Your task to perform on an android device: stop showing notifications on the lock screen Image 0: 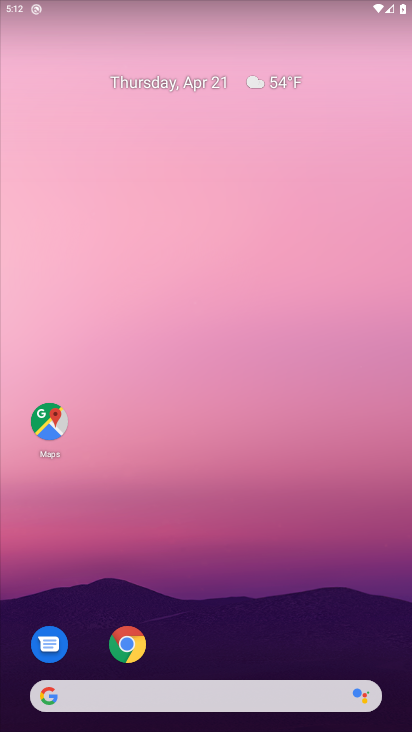
Step 0: drag from (253, 676) to (294, 328)
Your task to perform on an android device: stop showing notifications on the lock screen Image 1: 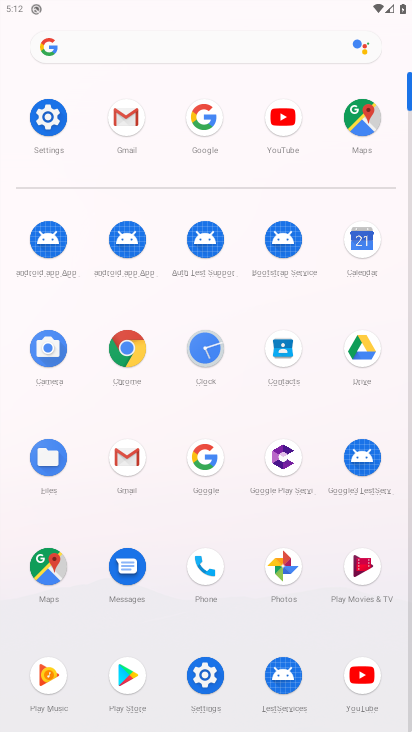
Step 1: click (49, 121)
Your task to perform on an android device: stop showing notifications on the lock screen Image 2: 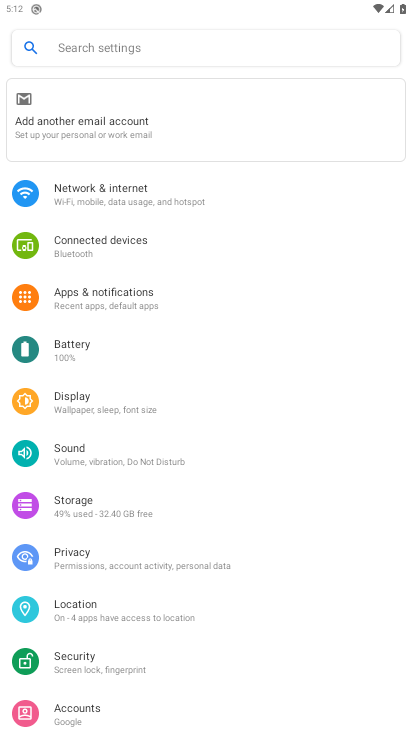
Step 2: click (111, 551)
Your task to perform on an android device: stop showing notifications on the lock screen Image 3: 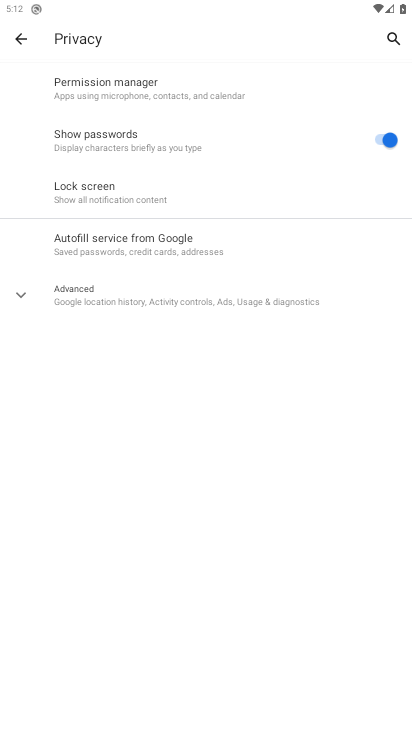
Step 3: click (99, 190)
Your task to perform on an android device: stop showing notifications on the lock screen Image 4: 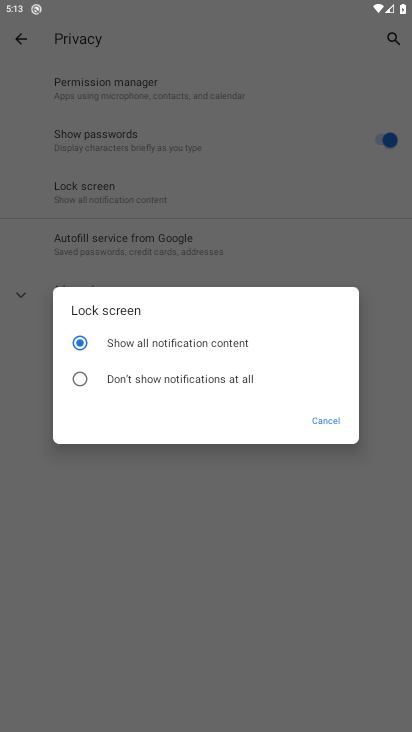
Step 4: click (124, 376)
Your task to perform on an android device: stop showing notifications on the lock screen Image 5: 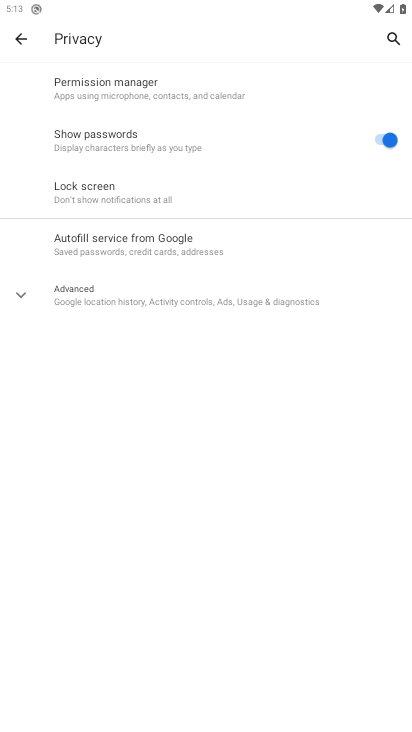
Step 5: task complete